Your task to perform on an android device: turn on translation in the chrome app Image 0: 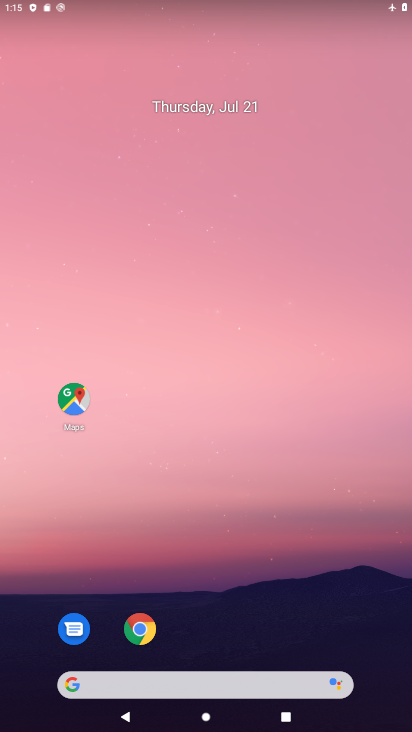
Step 0: drag from (43, 688) to (197, 142)
Your task to perform on an android device: turn on translation in the chrome app Image 1: 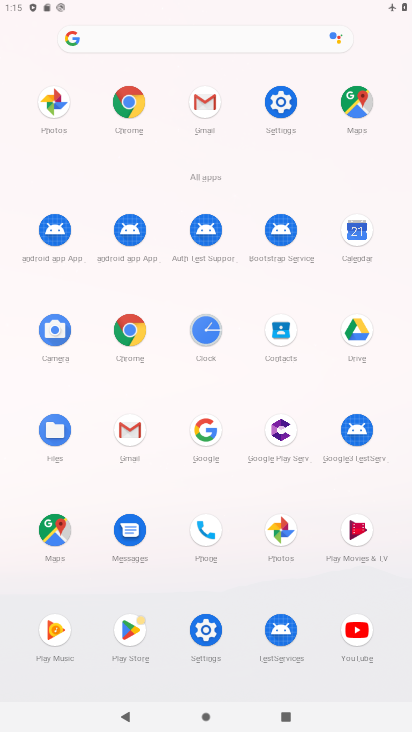
Step 1: click (113, 325)
Your task to perform on an android device: turn on translation in the chrome app Image 2: 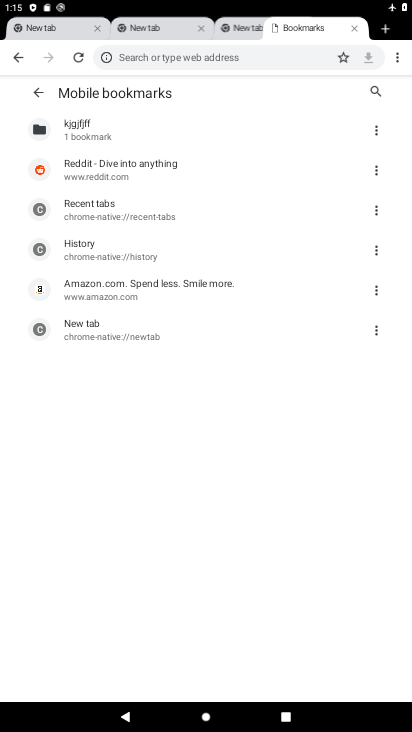
Step 2: click (402, 54)
Your task to perform on an android device: turn on translation in the chrome app Image 3: 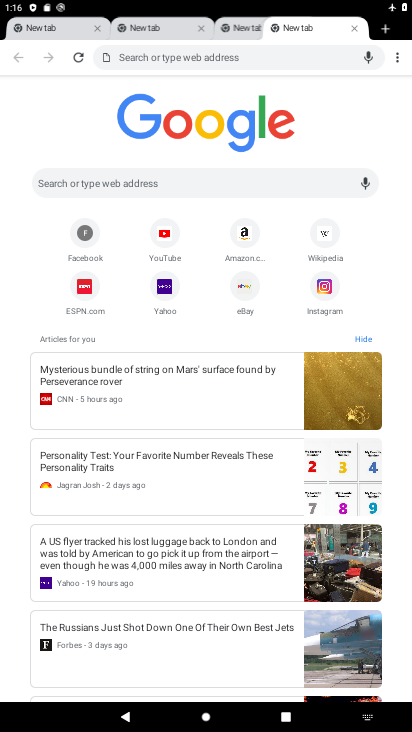
Step 3: click (391, 62)
Your task to perform on an android device: turn on translation in the chrome app Image 4: 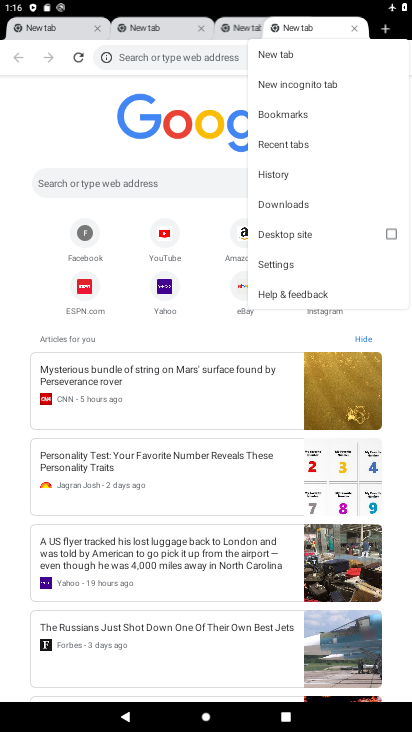
Step 4: click (284, 259)
Your task to perform on an android device: turn on translation in the chrome app Image 5: 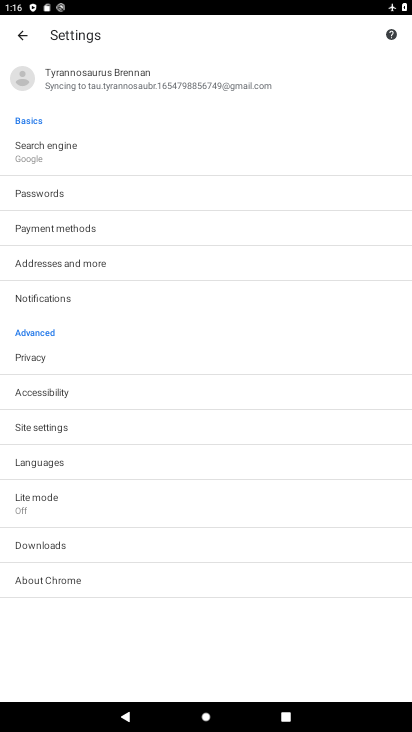
Step 5: click (35, 461)
Your task to perform on an android device: turn on translation in the chrome app Image 6: 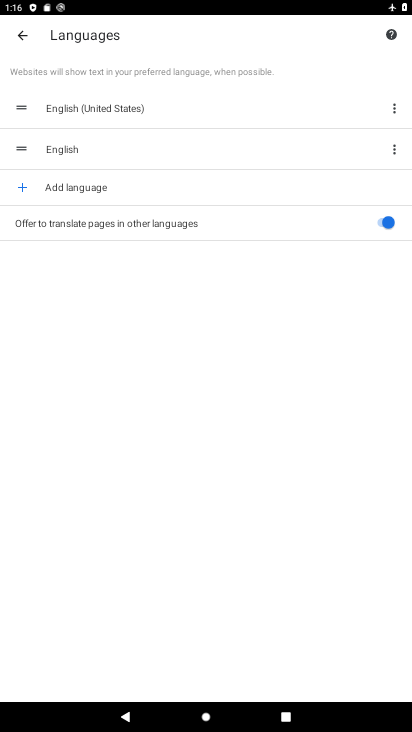
Step 6: task complete